Your task to perform on an android device: manage bookmarks in the chrome app Image 0: 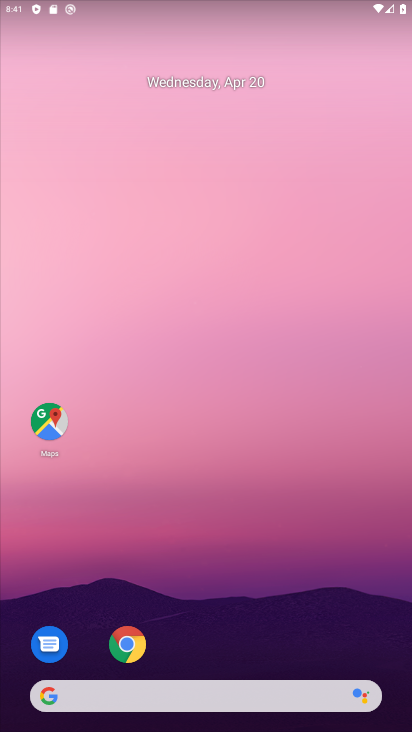
Step 0: click (128, 649)
Your task to perform on an android device: manage bookmarks in the chrome app Image 1: 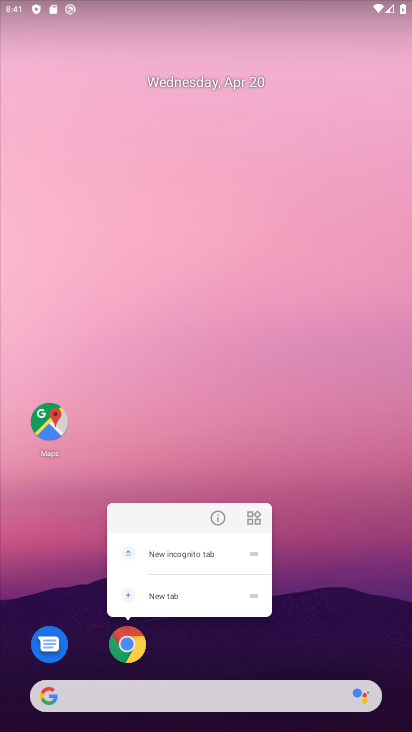
Step 1: click (128, 649)
Your task to perform on an android device: manage bookmarks in the chrome app Image 2: 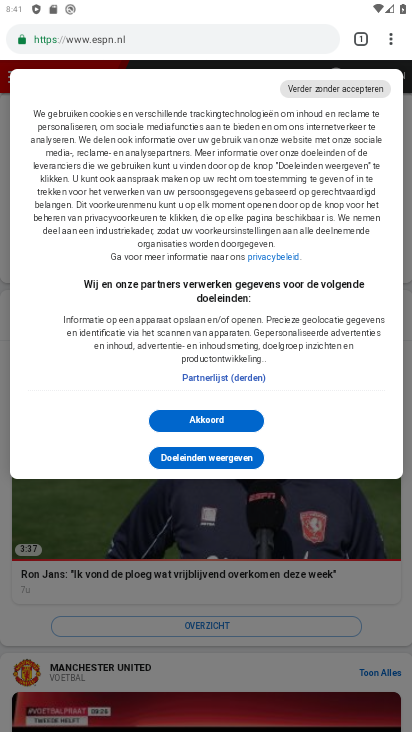
Step 2: click (355, 37)
Your task to perform on an android device: manage bookmarks in the chrome app Image 3: 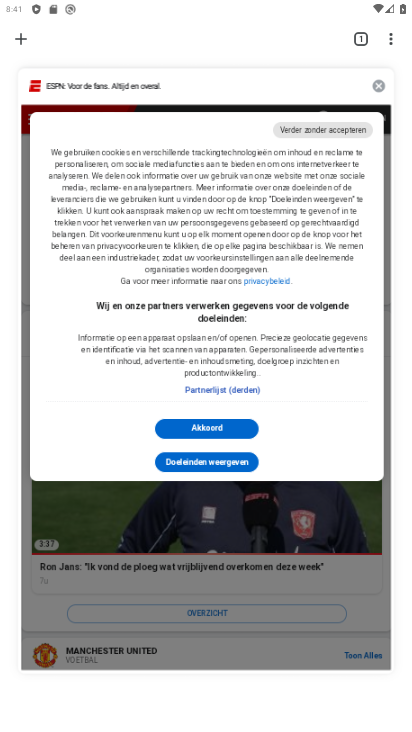
Step 3: click (382, 85)
Your task to perform on an android device: manage bookmarks in the chrome app Image 4: 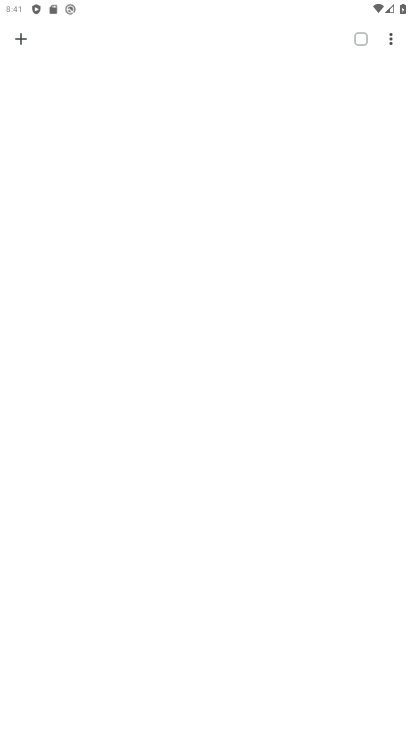
Step 4: click (24, 35)
Your task to perform on an android device: manage bookmarks in the chrome app Image 5: 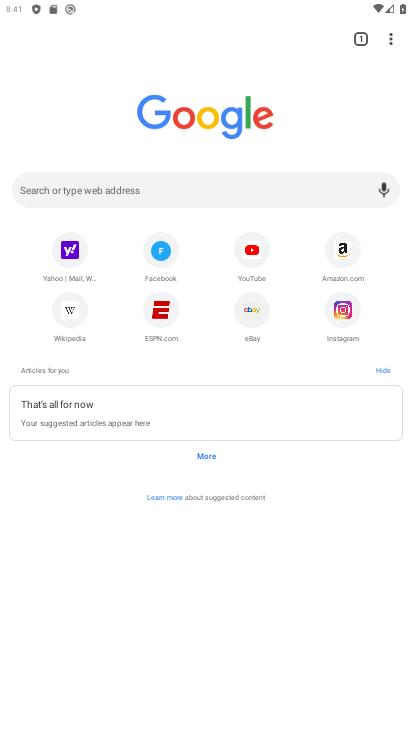
Step 5: click (390, 41)
Your task to perform on an android device: manage bookmarks in the chrome app Image 6: 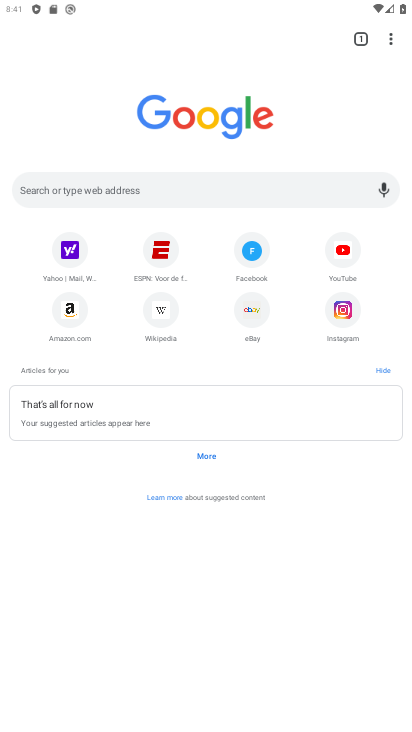
Step 6: click (390, 41)
Your task to perform on an android device: manage bookmarks in the chrome app Image 7: 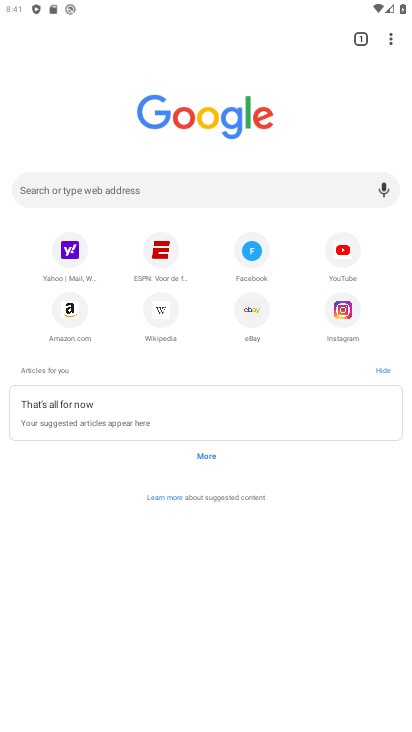
Step 7: click (390, 41)
Your task to perform on an android device: manage bookmarks in the chrome app Image 8: 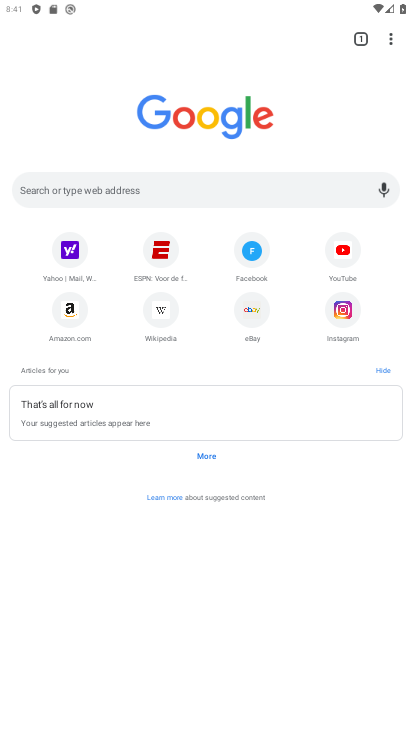
Step 8: click (390, 41)
Your task to perform on an android device: manage bookmarks in the chrome app Image 9: 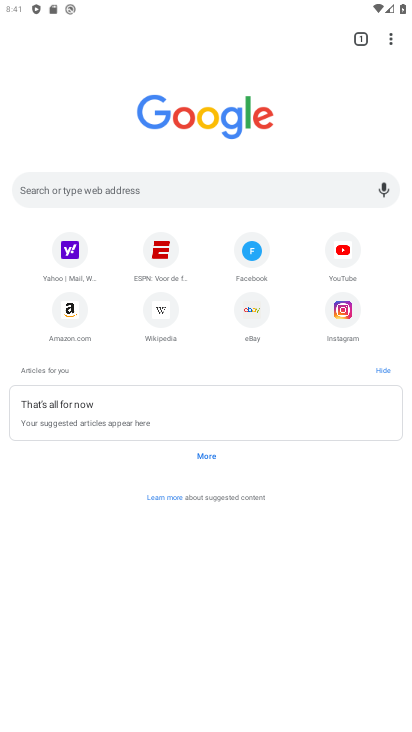
Step 9: task complete